Your task to perform on an android device: install app "Gmail" Image 0: 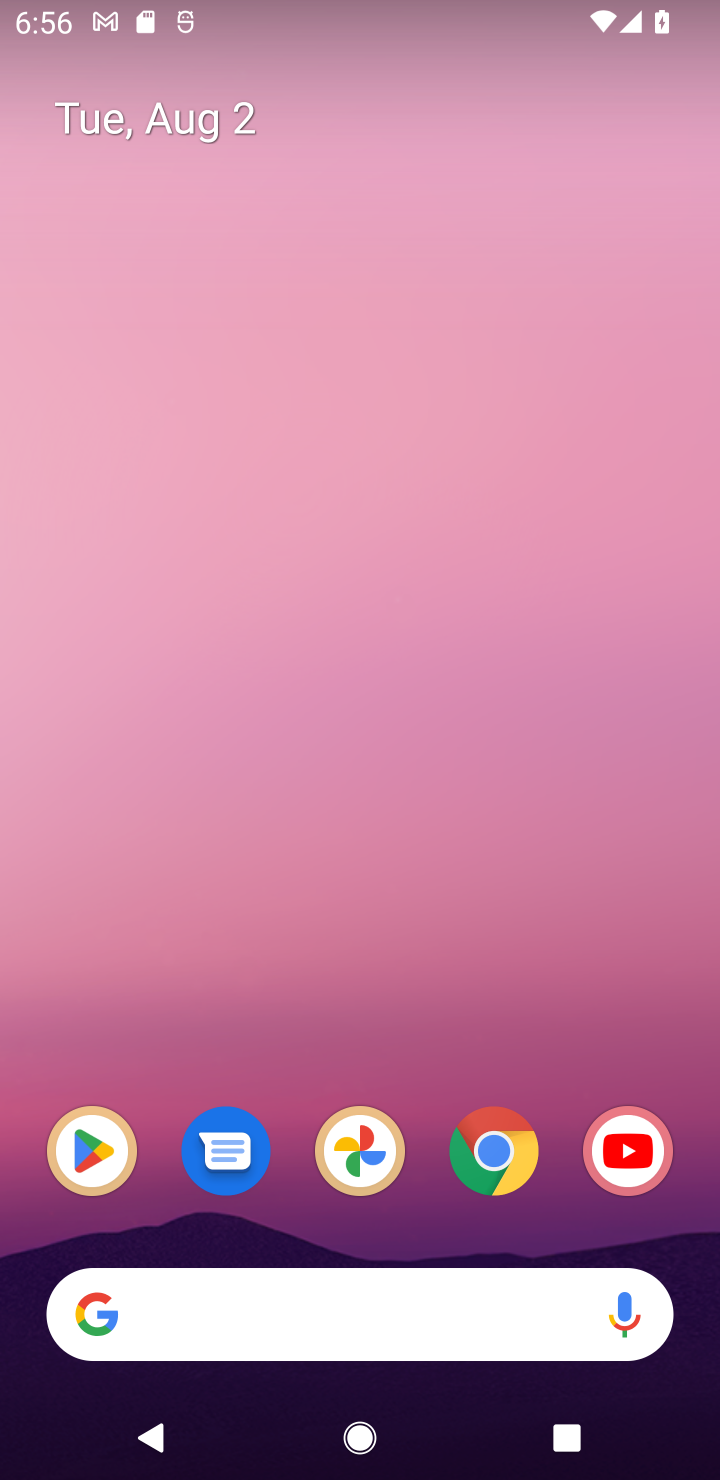
Step 0: click (92, 1122)
Your task to perform on an android device: install app "Gmail" Image 1: 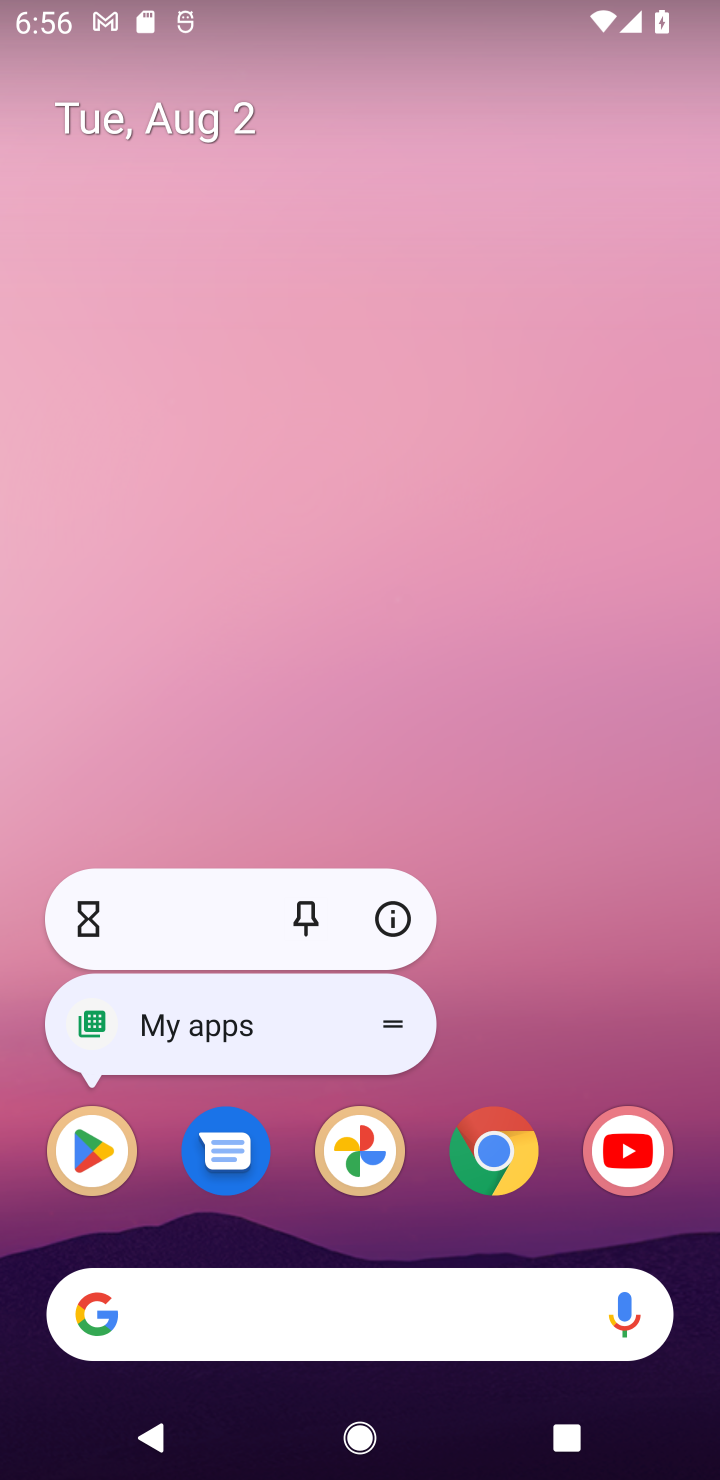
Step 1: click (92, 1122)
Your task to perform on an android device: install app "Gmail" Image 2: 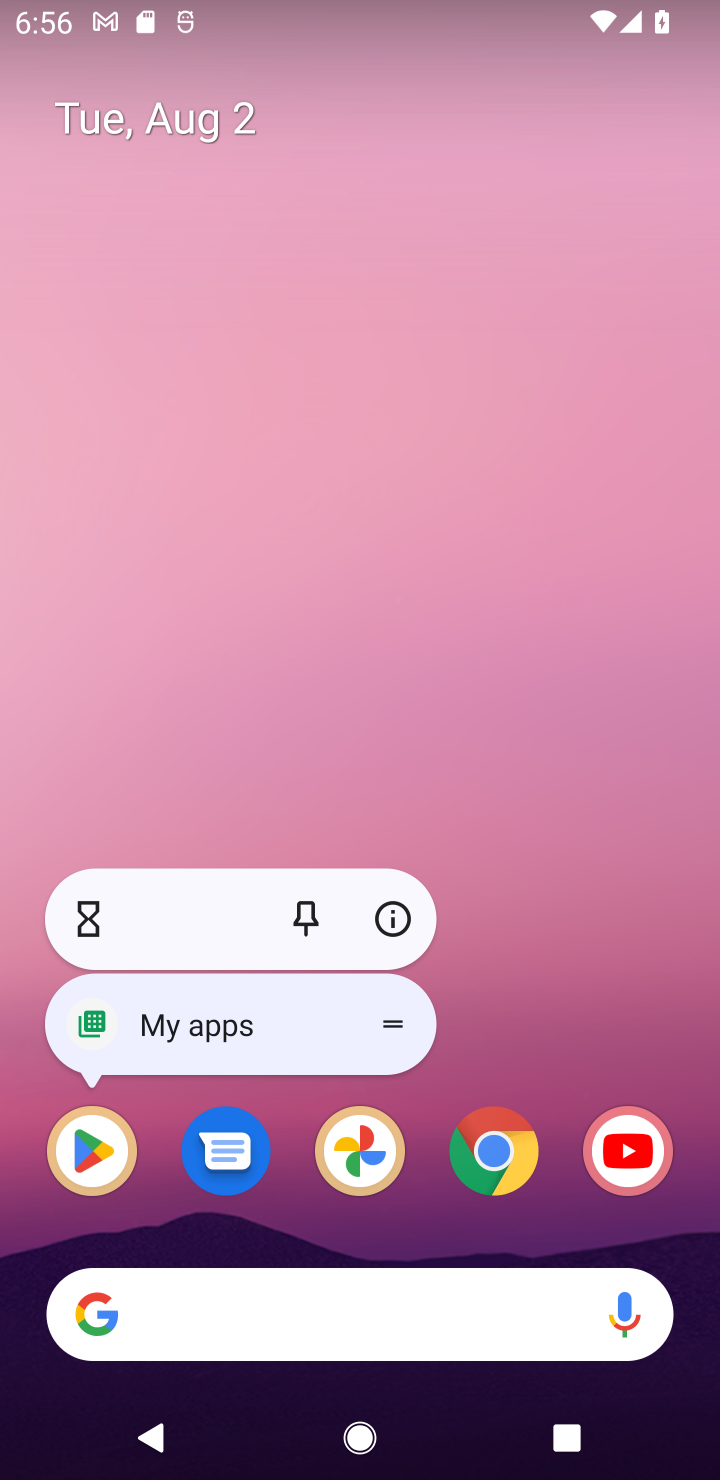
Step 2: click (116, 1146)
Your task to perform on an android device: install app "Gmail" Image 3: 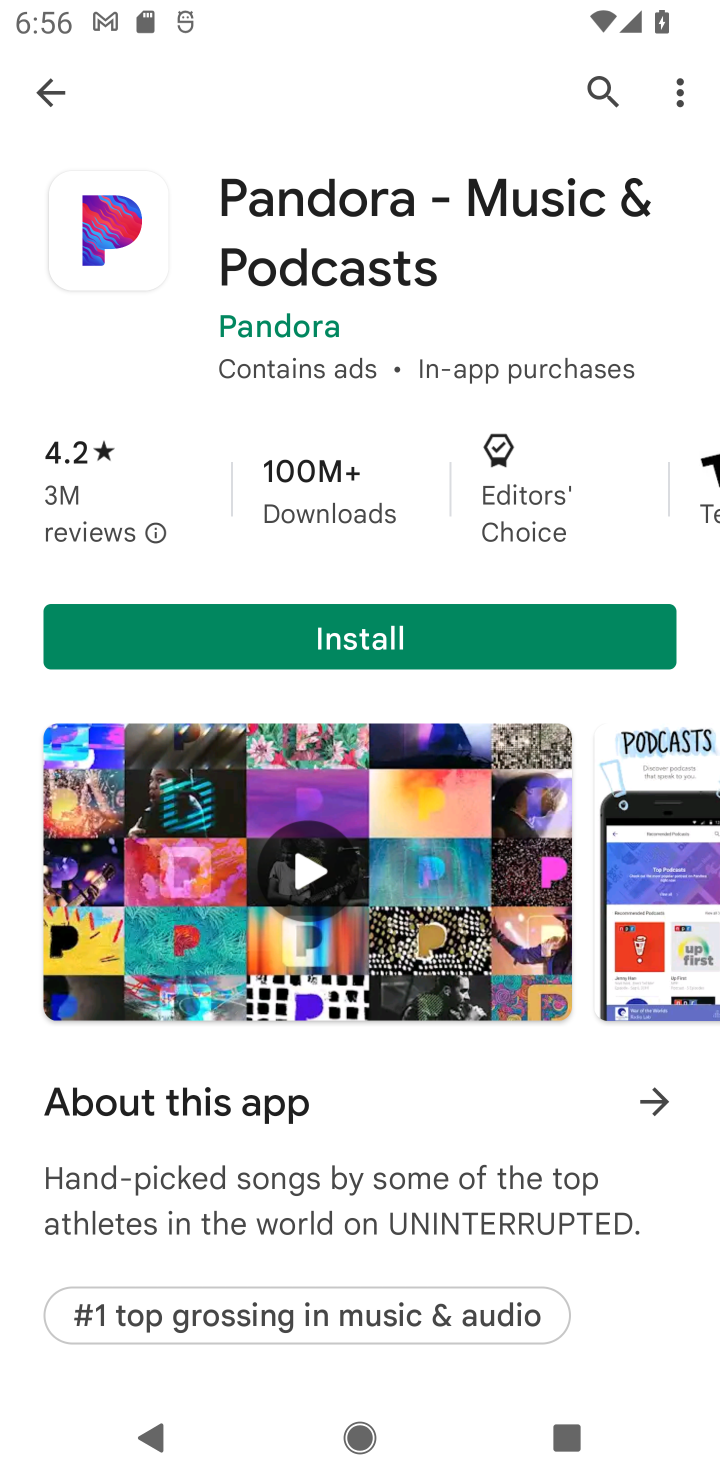
Step 3: click (585, 93)
Your task to perform on an android device: install app "Gmail" Image 4: 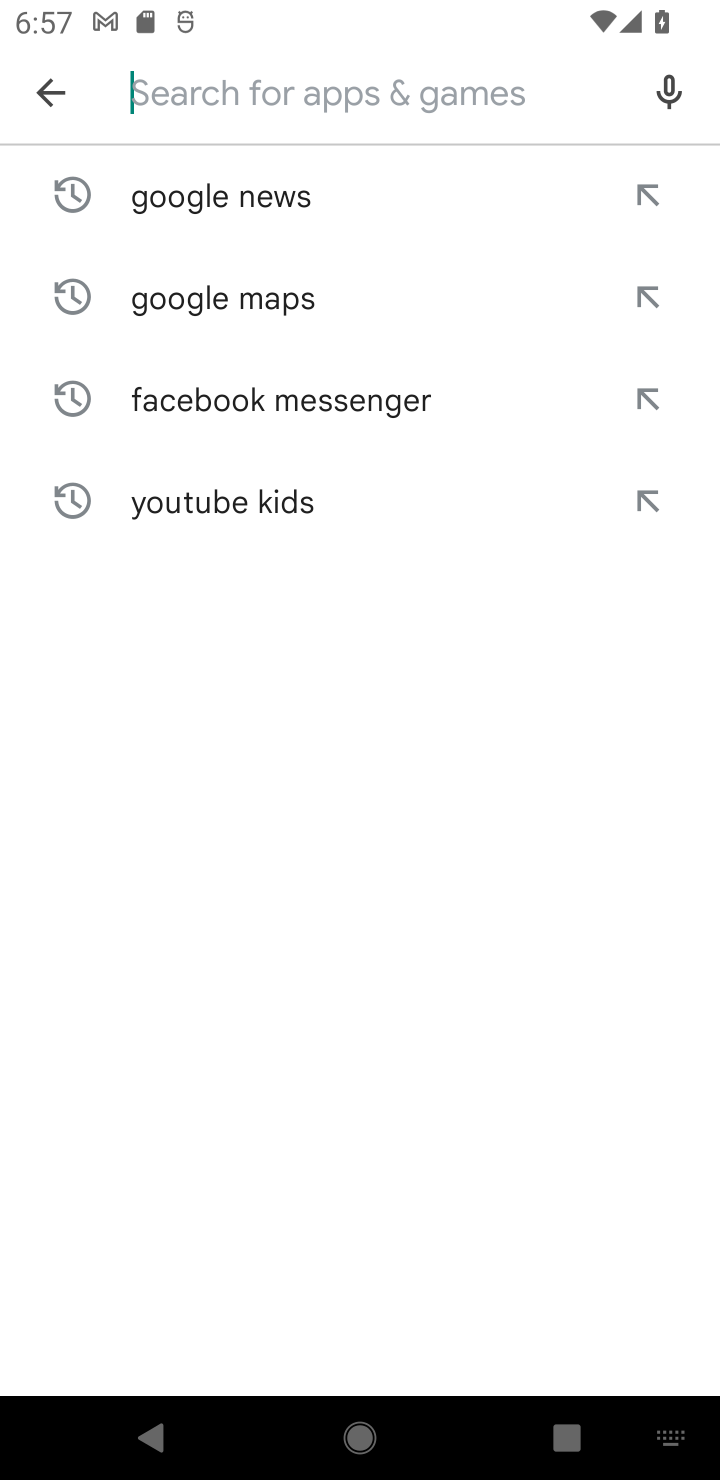
Step 4: type "Gmail"
Your task to perform on an android device: install app "Gmail" Image 5: 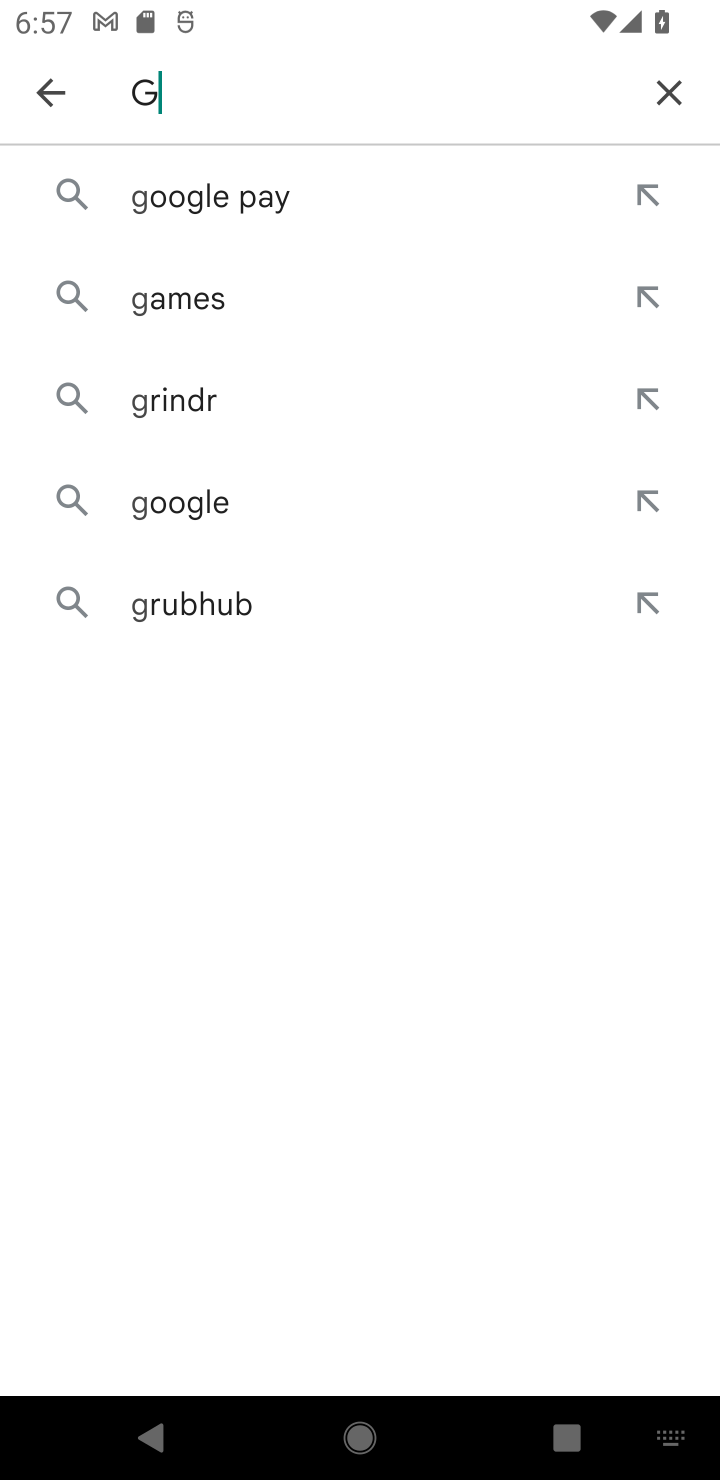
Step 5: type ""
Your task to perform on an android device: install app "Gmail" Image 6: 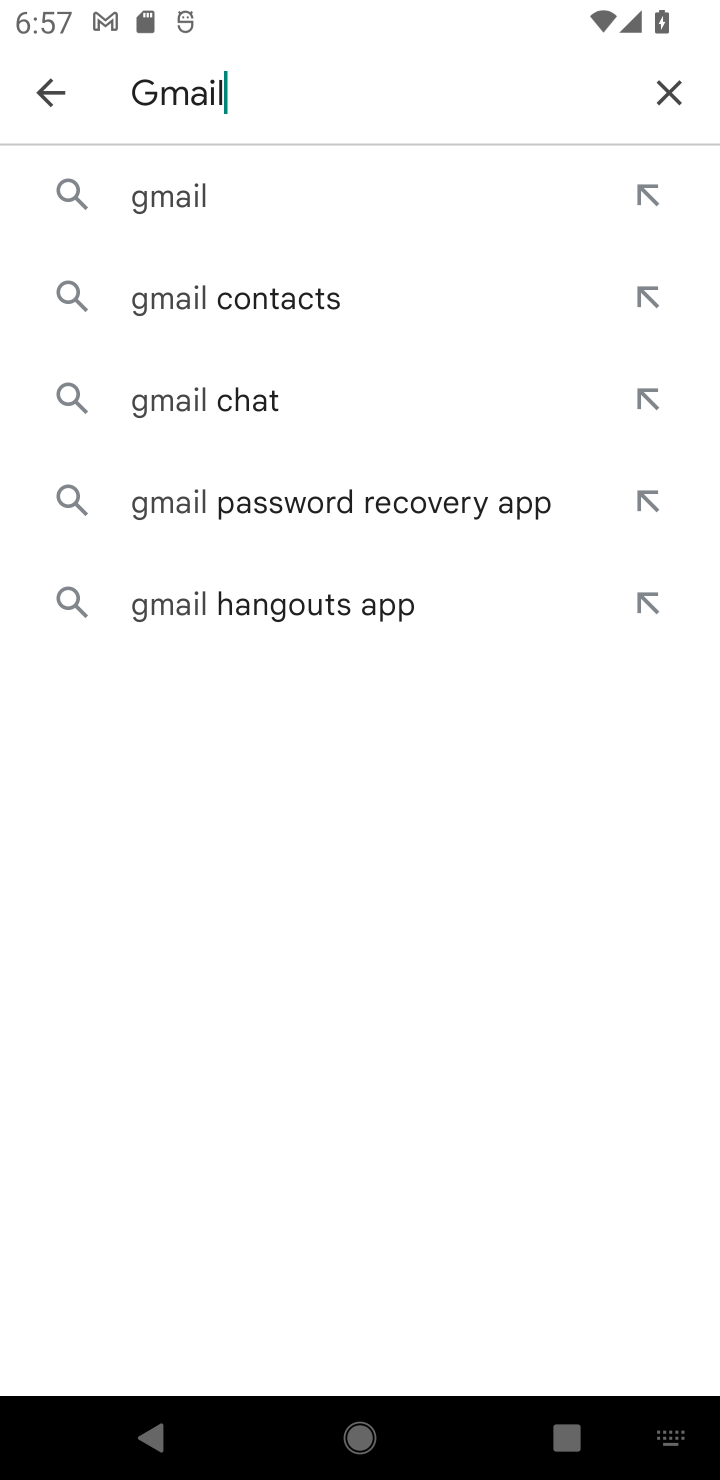
Step 6: click (285, 213)
Your task to perform on an android device: install app "Gmail" Image 7: 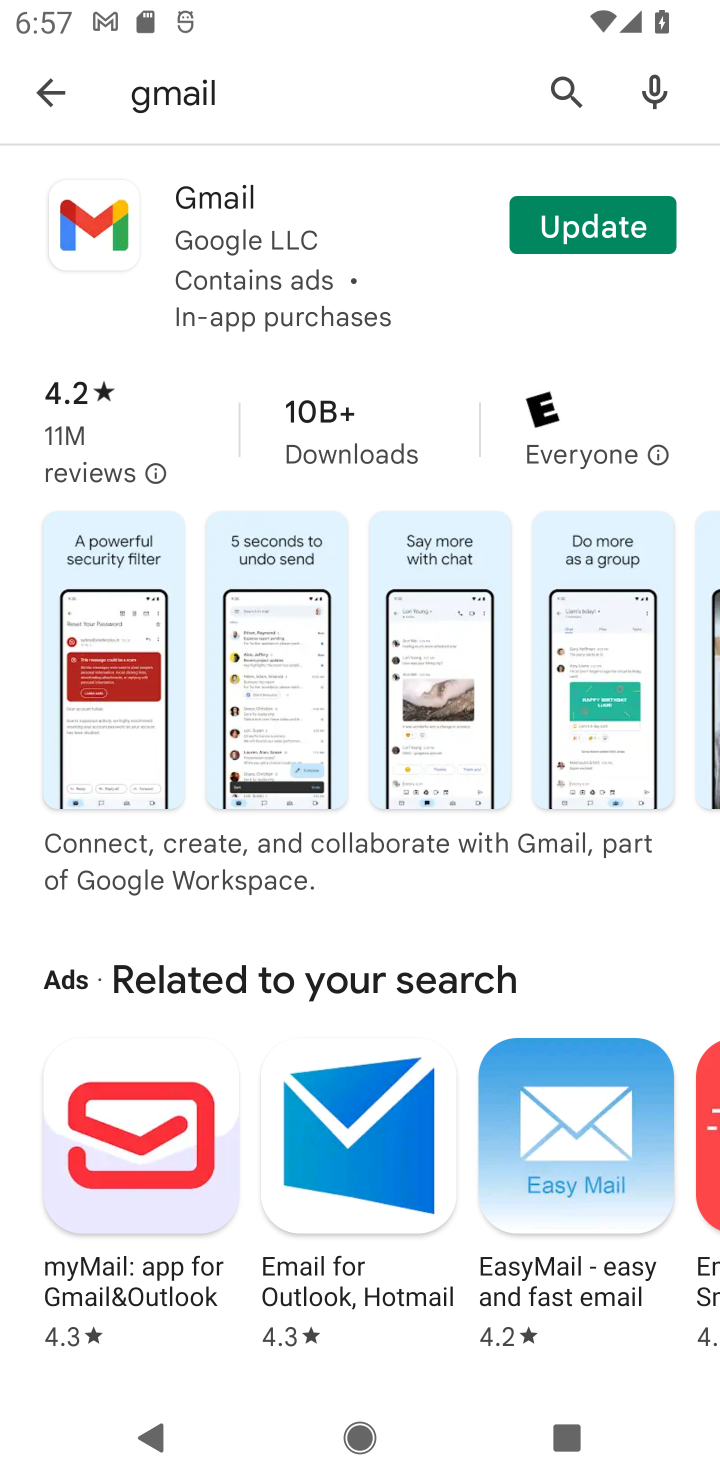
Step 7: task complete